Your task to perform on an android device: toggle airplane mode Image 0: 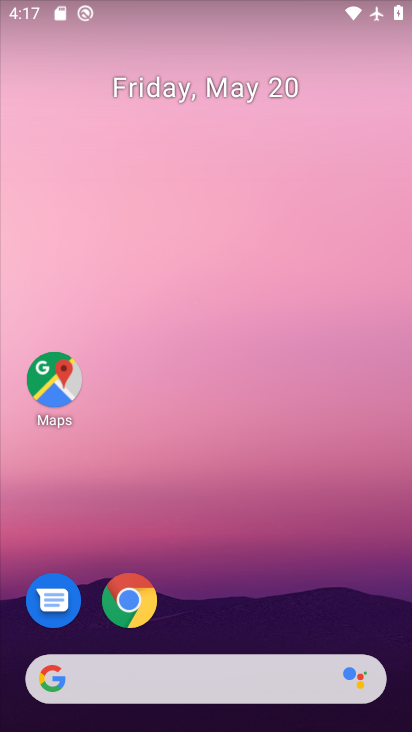
Step 0: drag from (223, 332) to (170, 29)
Your task to perform on an android device: toggle airplane mode Image 1: 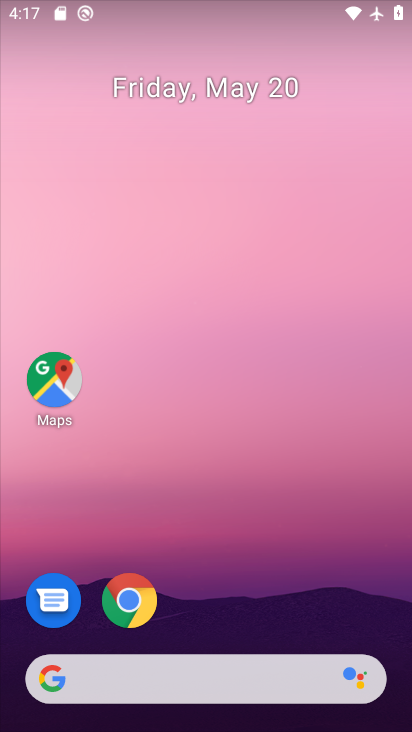
Step 1: drag from (251, 536) to (228, 6)
Your task to perform on an android device: toggle airplane mode Image 2: 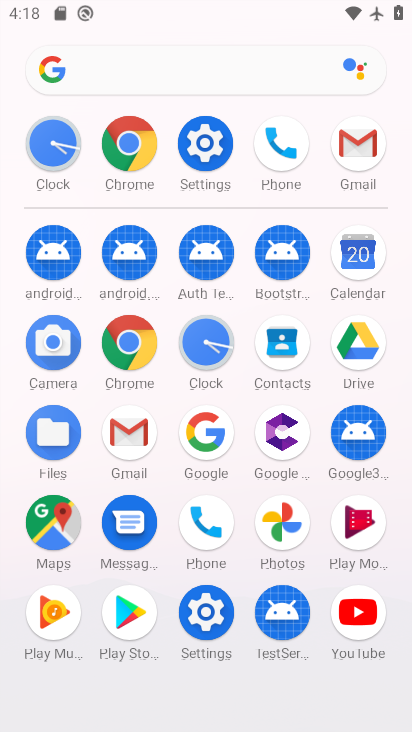
Step 2: click (203, 149)
Your task to perform on an android device: toggle airplane mode Image 3: 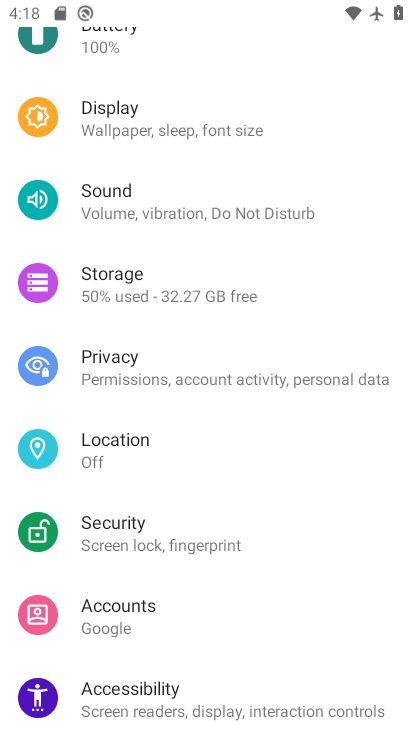
Step 3: drag from (266, 170) to (259, 723)
Your task to perform on an android device: toggle airplane mode Image 4: 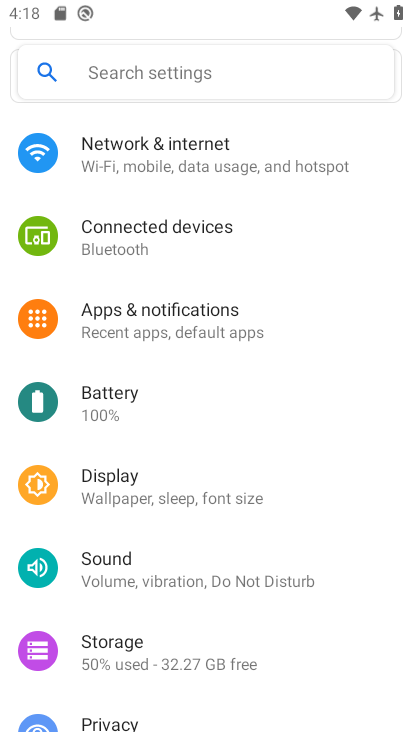
Step 4: click (199, 171)
Your task to perform on an android device: toggle airplane mode Image 5: 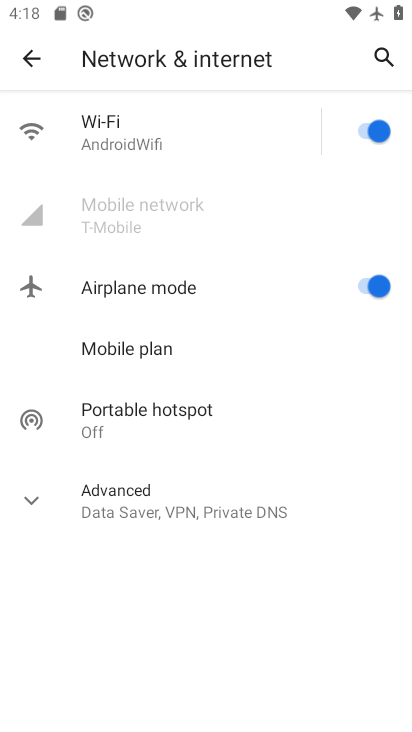
Step 5: click (361, 290)
Your task to perform on an android device: toggle airplane mode Image 6: 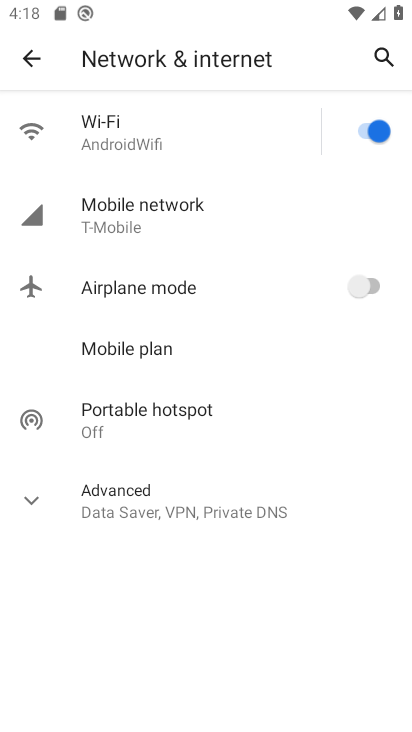
Step 6: task complete